Your task to perform on an android device: Go to CNN.com Image 0: 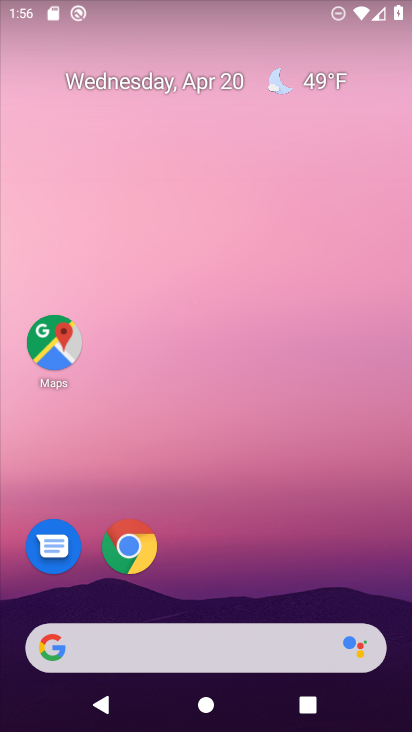
Step 0: click (131, 534)
Your task to perform on an android device: Go to CNN.com Image 1: 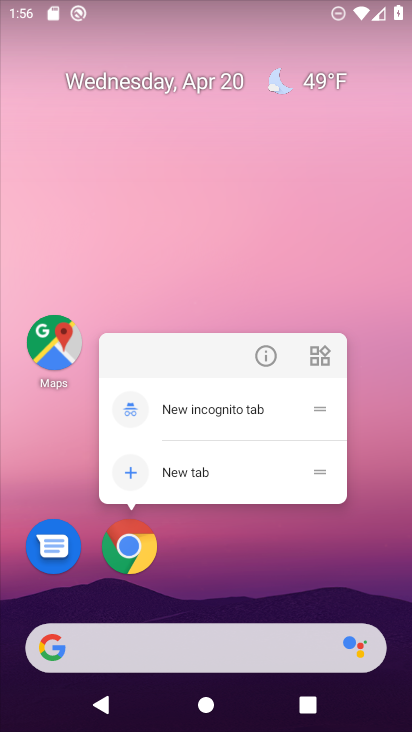
Step 1: click (135, 542)
Your task to perform on an android device: Go to CNN.com Image 2: 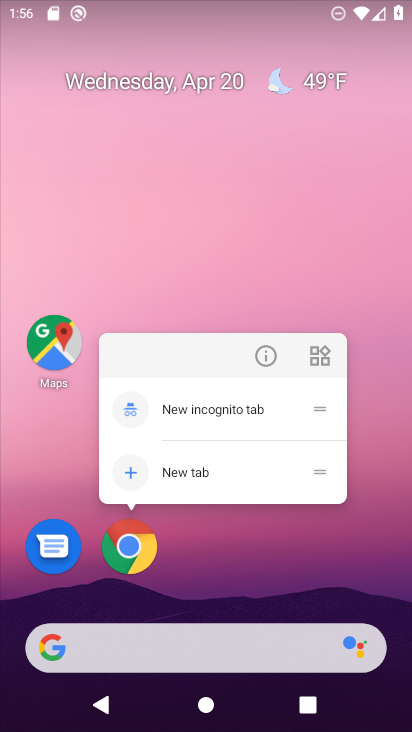
Step 2: click (137, 546)
Your task to perform on an android device: Go to CNN.com Image 3: 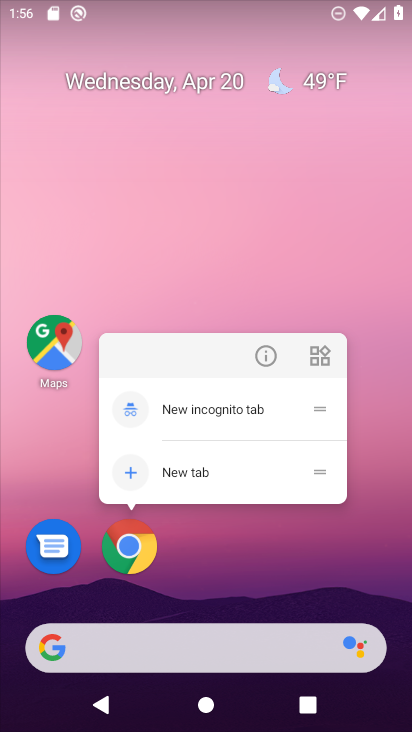
Step 3: click (121, 540)
Your task to perform on an android device: Go to CNN.com Image 4: 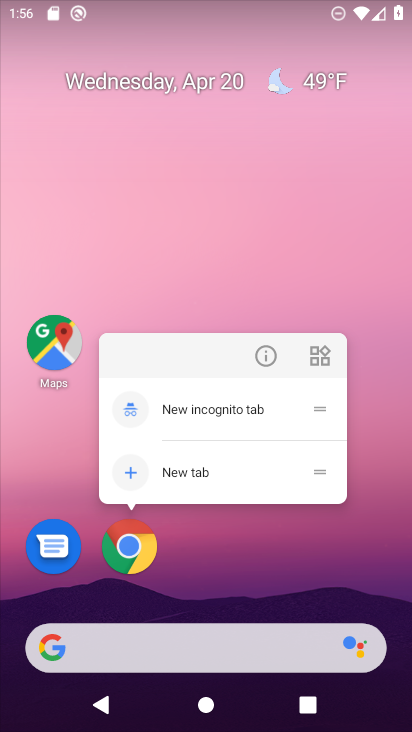
Step 4: click (124, 544)
Your task to perform on an android device: Go to CNN.com Image 5: 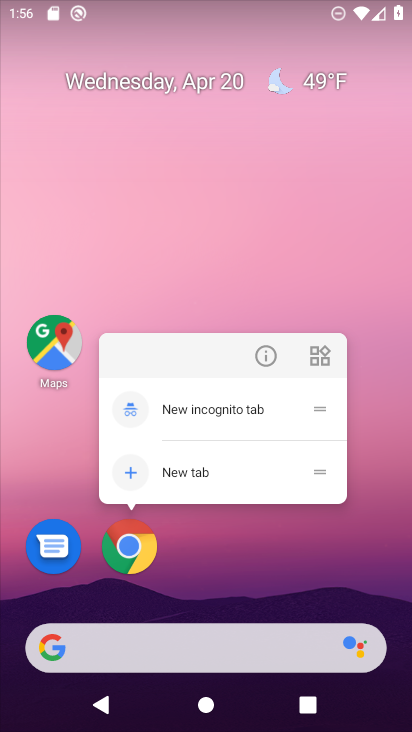
Step 5: click (136, 557)
Your task to perform on an android device: Go to CNN.com Image 6: 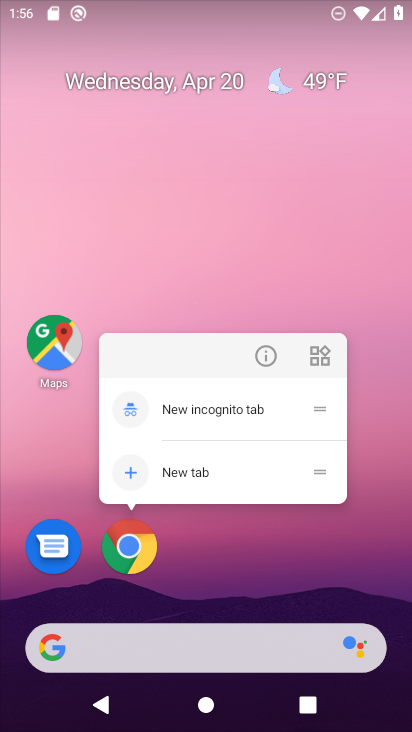
Step 6: click (136, 557)
Your task to perform on an android device: Go to CNN.com Image 7: 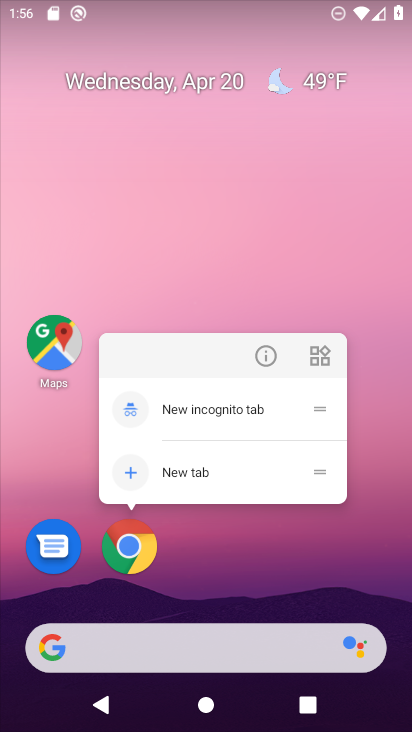
Step 7: click (141, 539)
Your task to perform on an android device: Go to CNN.com Image 8: 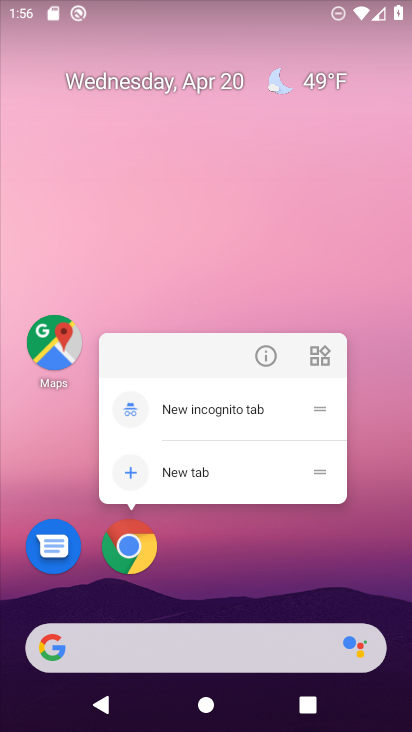
Step 8: click (133, 538)
Your task to perform on an android device: Go to CNN.com Image 9: 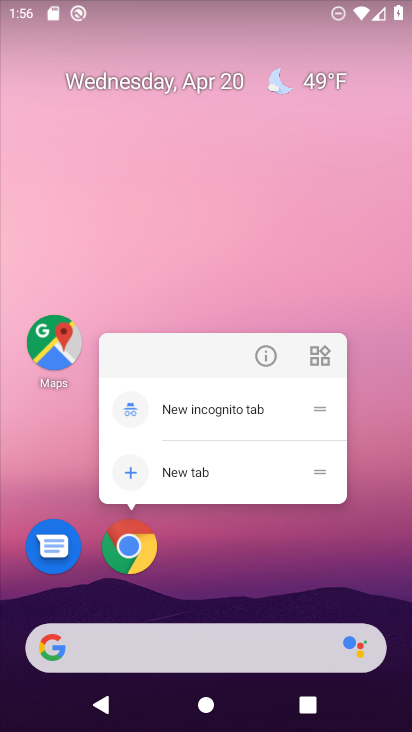
Step 9: click (129, 543)
Your task to perform on an android device: Go to CNN.com Image 10: 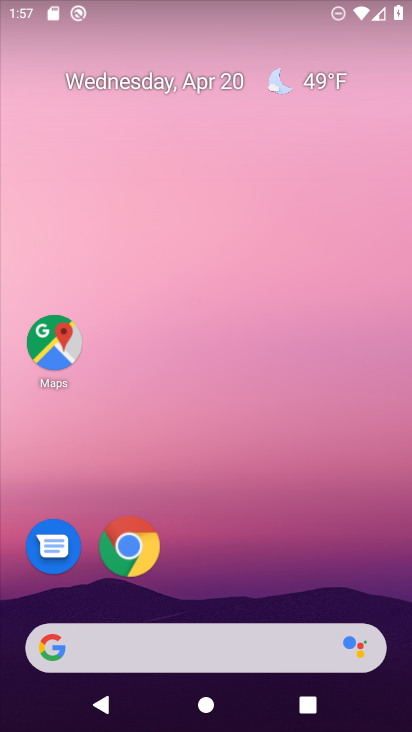
Step 10: click (131, 548)
Your task to perform on an android device: Go to CNN.com Image 11: 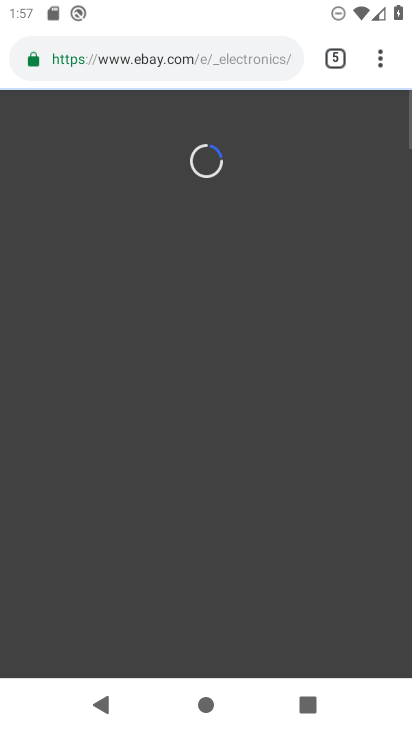
Step 11: click (336, 62)
Your task to perform on an android device: Go to CNN.com Image 12: 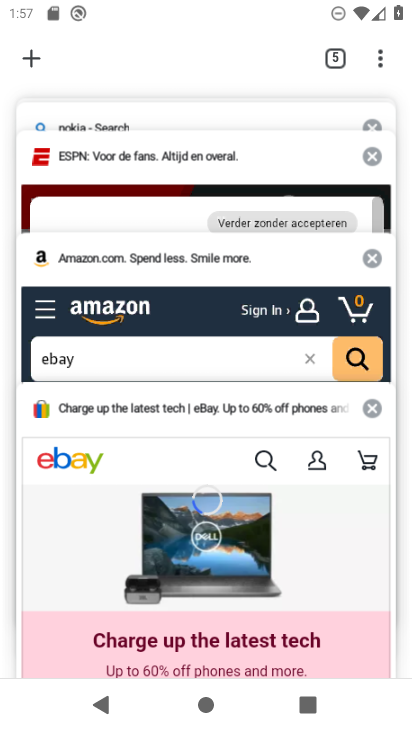
Step 12: click (31, 56)
Your task to perform on an android device: Go to CNN.com Image 13: 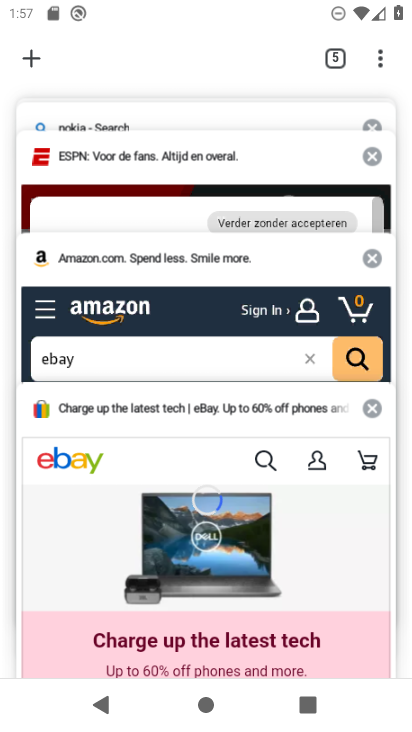
Step 13: click (33, 48)
Your task to perform on an android device: Go to CNN.com Image 14: 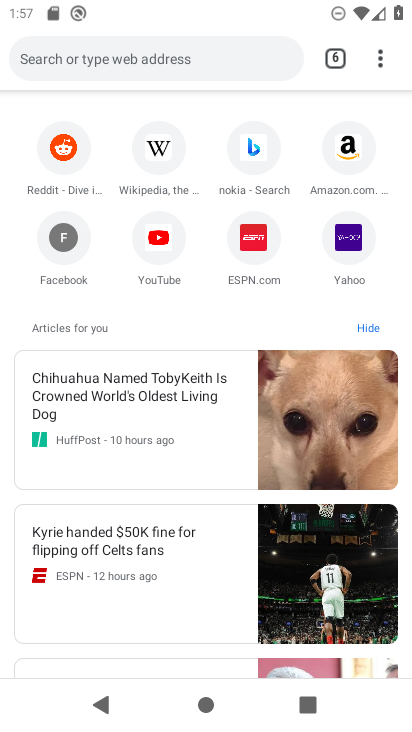
Step 14: click (153, 48)
Your task to perform on an android device: Go to CNN.com Image 15: 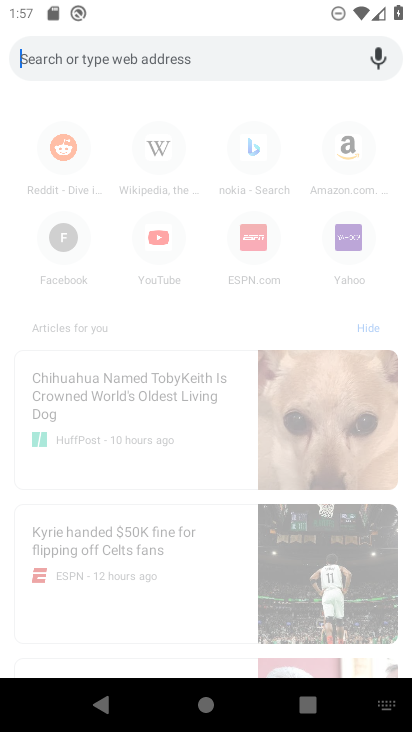
Step 15: type "cnn.com"
Your task to perform on an android device: Go to CNN.com Image 16: 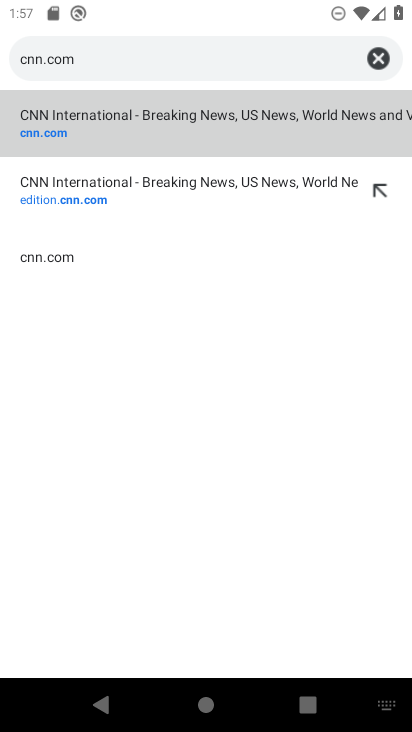
Step 16: click (136, 130)
Your task to perform on an android device: Go to CNN.com Image 17: 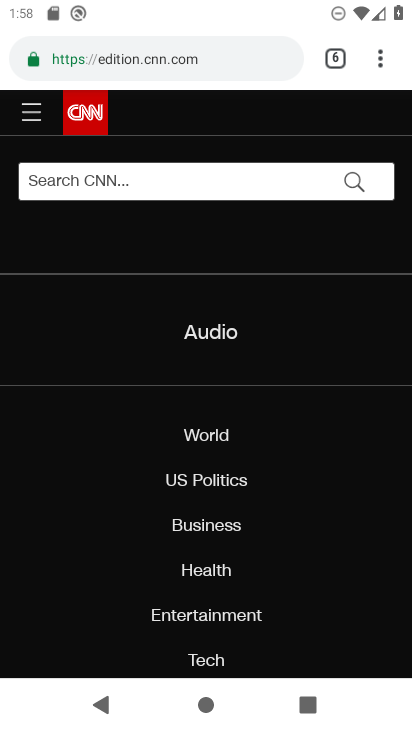
Step 17: task complete